Your task to perform on an android device: add a contact Image 0: 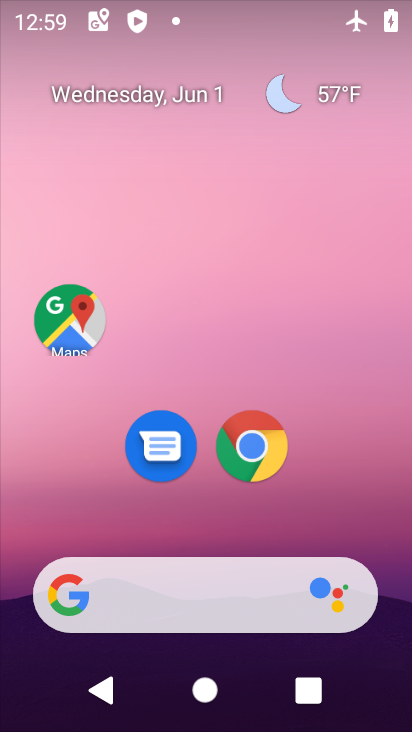
Step 0: drag from (160, 538) to (201, 173)
Your task to perform on an android device: add a contact Image 1: 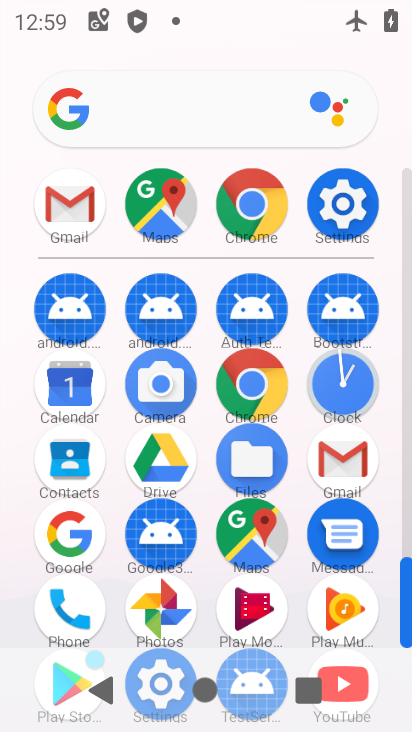
Step 1: drag from (209, 276) to (210, 140)
Your task to perform on an android device: add a contact Image 2: 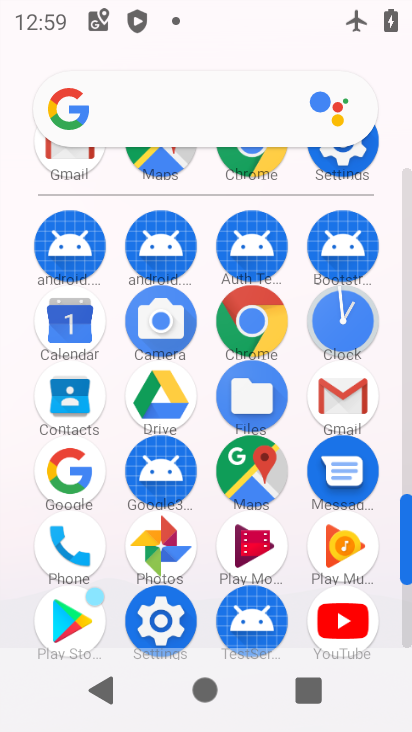
Step 2: click (70, 418)
Your task to perform on an android device: add a contact Image 3: 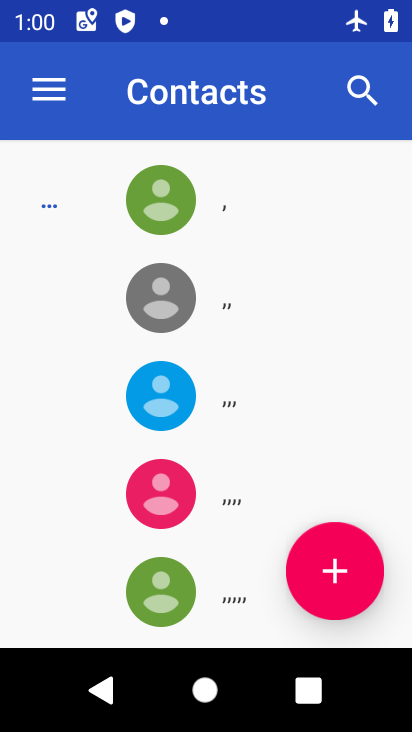
Step 3: click (344, 584)
Your task to perform on an android device: add a contact Image 4: 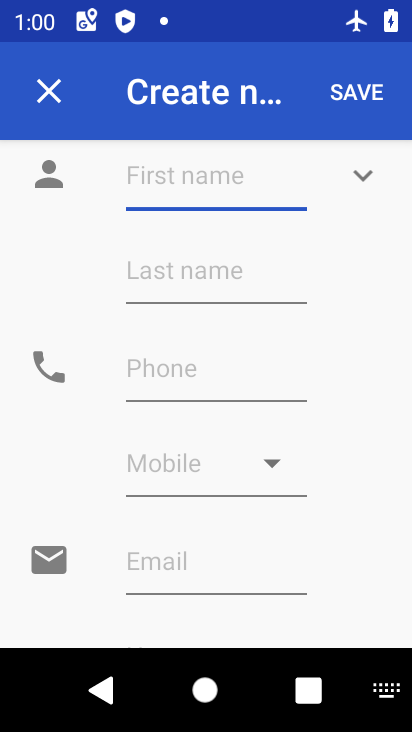
Step 4: type "fhgdhghjgv"
Your task to perform on an android device: add a contact Image 5: 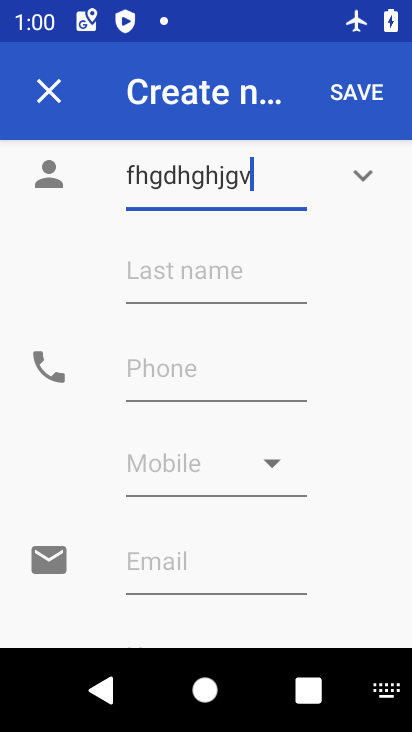
Step 5: click (357, 102)
Your task to perform on an android device: add a contact Image 6: 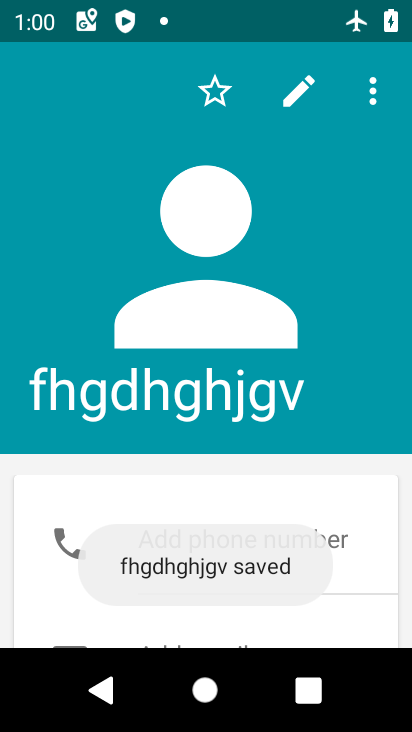
Step 6: task complete